Your task to perform on an android device: check data usage Image 0: 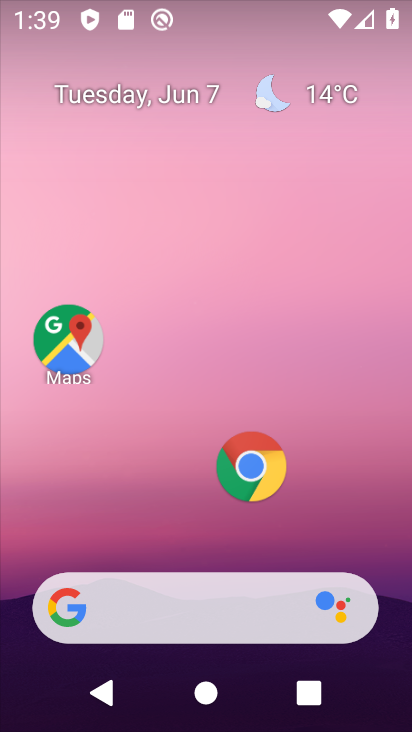
Step 0: drag from (149, 707) to (190, 90)
Your task to perform on an android device: check data usage Image 1: 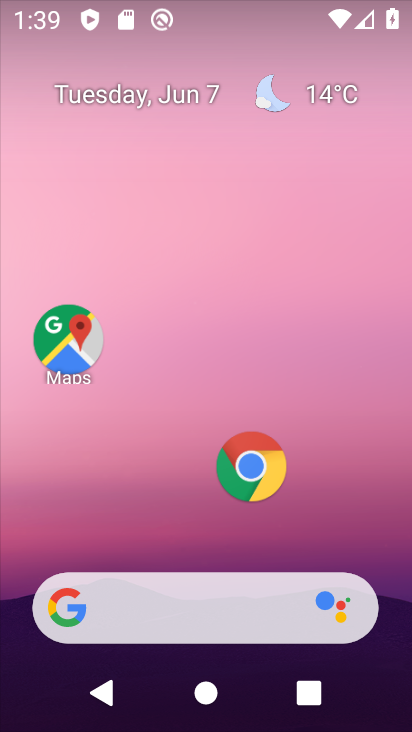
Step 1: drag from (157, 728) to (165, 99)
Your task to perform on an android device: check data usage Image 2: 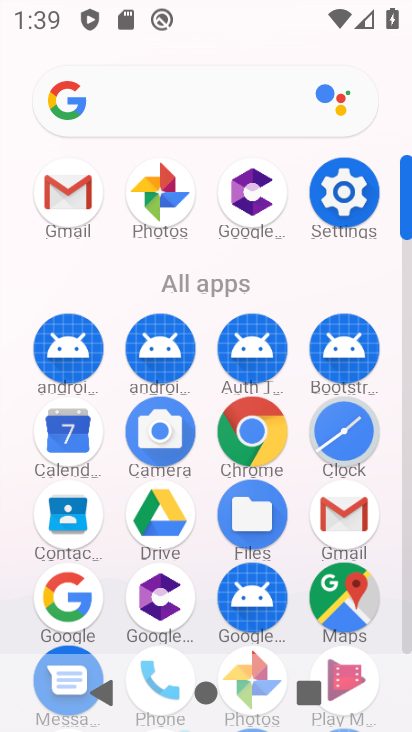
Step 2: click (350, 211)
Your task to perform on an android device: check data usage Image 3: 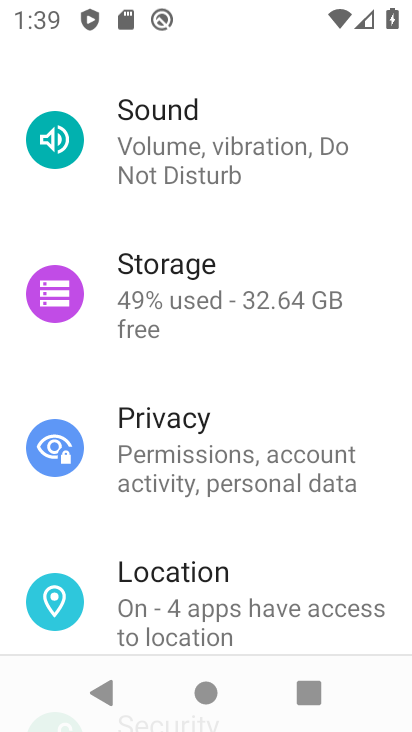
Step 3: drag from (272, 196) to (289, 648)
Your task to perform on an android device: check data usage Image 4: 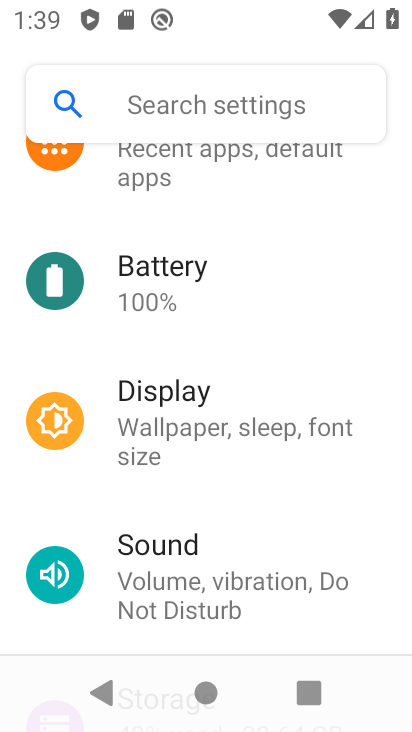
Step 4: drag from (267, 228) to (280, 477)
Your task to perform on an android device: check data usage Image 5: 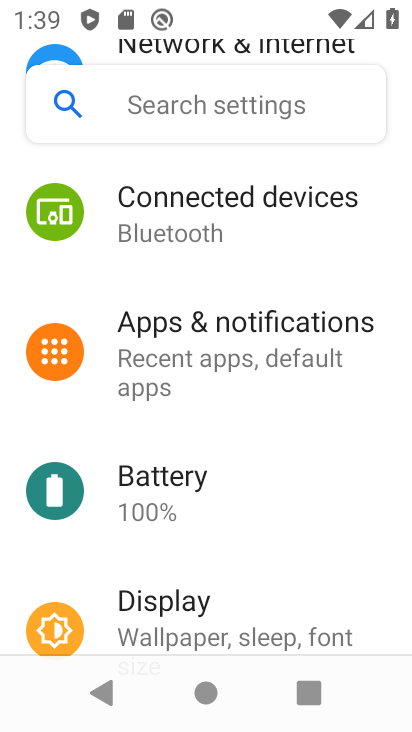
Step 5: drag from (236, 263) to (214, 593)
Your task to perform on an android device: check data usage Image 6: 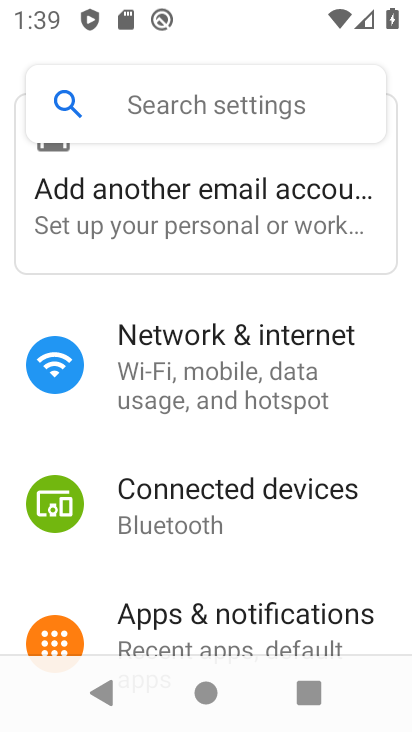
Step 6: drag from (294, 487) to (294, 336)
Your task to perform on an android device: check data usage Image 7: 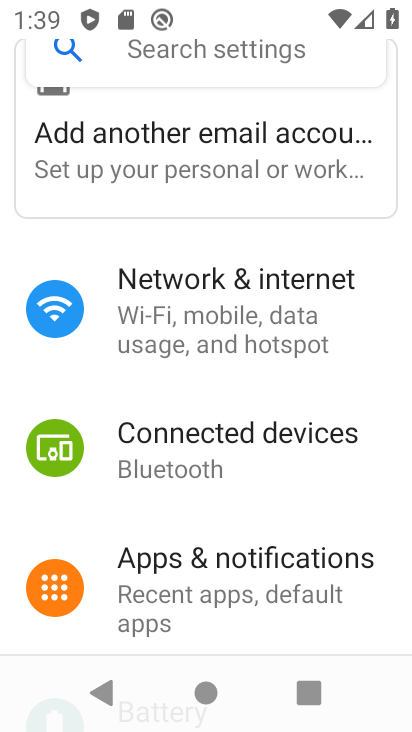
Step 7: click (287, 305)
Your task to perform on an android device: check data usage Image 8: 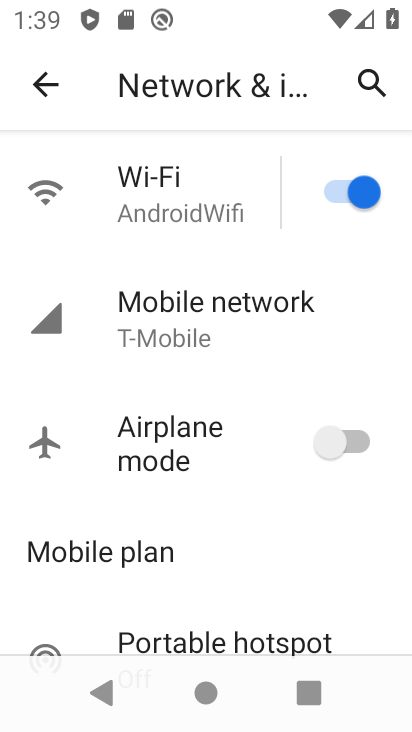
Step 8: click (201, 332)
Your task to perform on an android device: check data usage Image 9: 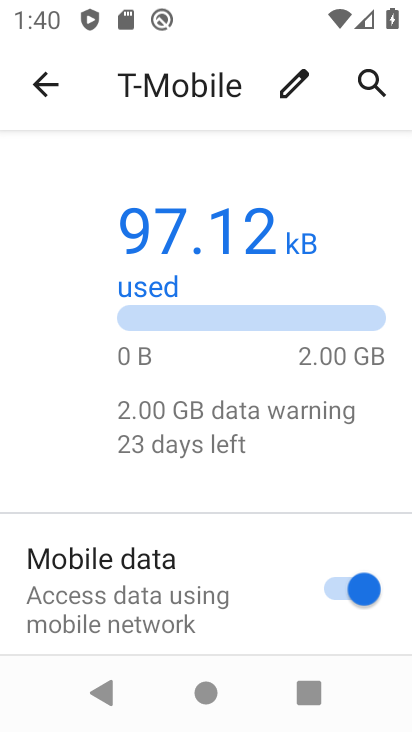
Step 9: task complete